Your task to perform on an android device: Go to internet settings Image 0: 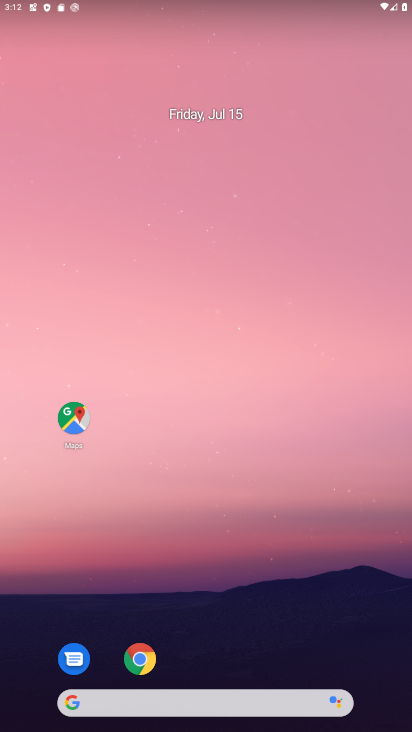
Step 0: drag from (129, 495) to (234, 229)
Your task to perform on an android device: Go to internet settings Image 1: 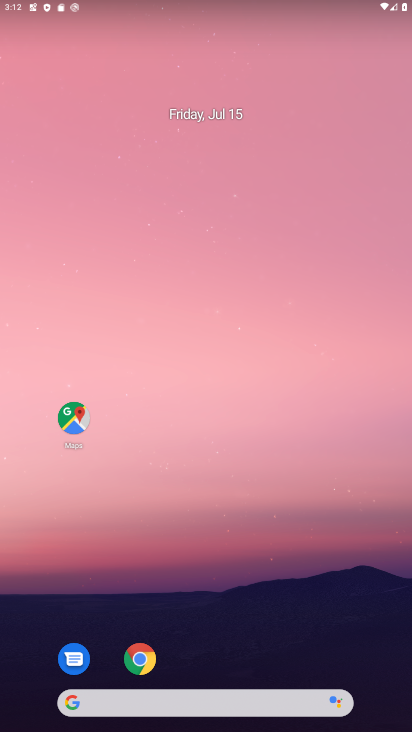
Step 1: drag from (82, 556) to (246, 90)
Your task to perform on an android device: Go to internet settings Image 2: 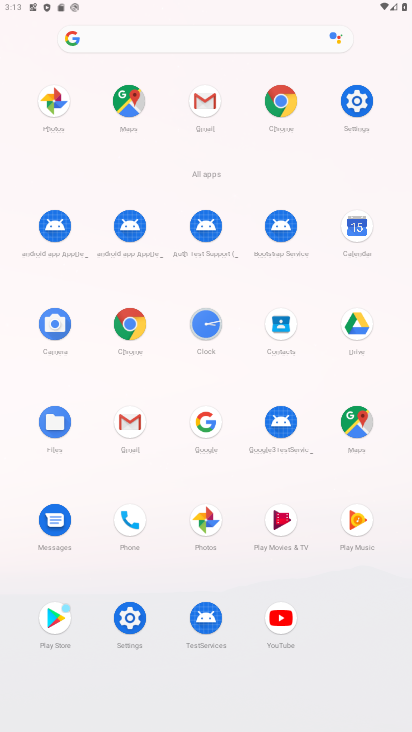
Step 2: click (137, 616)
Your task to perform on an android device: Go to internet settings Image 3: 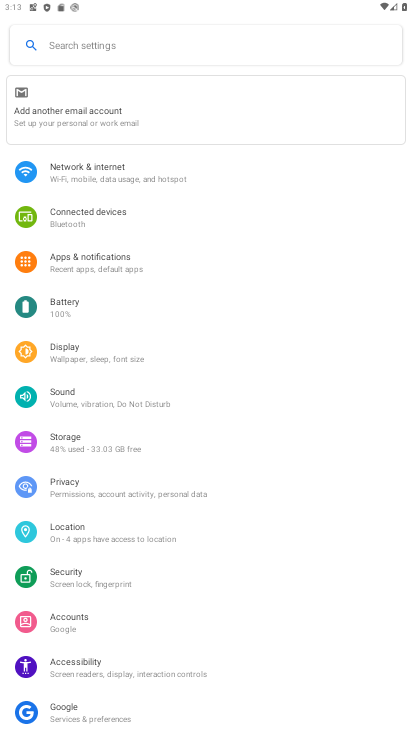
Step 3: click (76, 171)
Your task to perform on an android device: Go to internet settings Image 4: 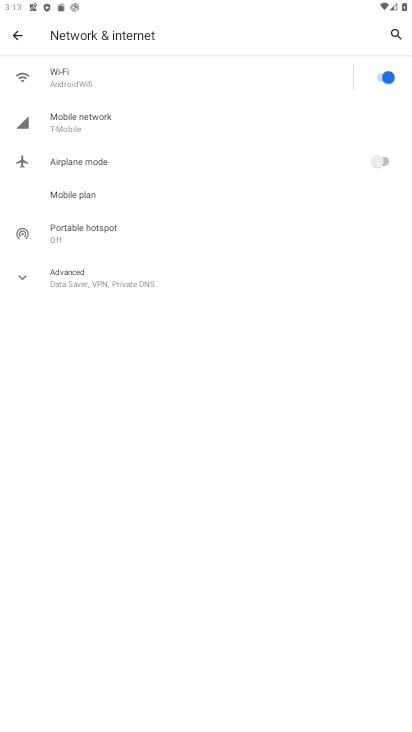
Step 4: task complete